Your task to perform on an android device: check android version Image 0: 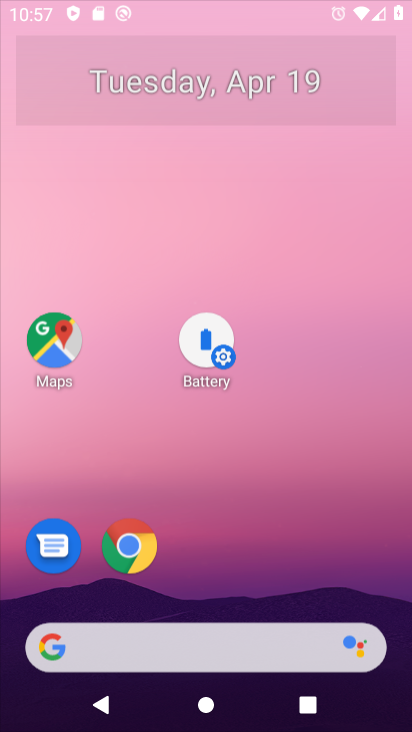
Step 0: click (54, 310)
Your task to perform on an android device: check android version Image 1: 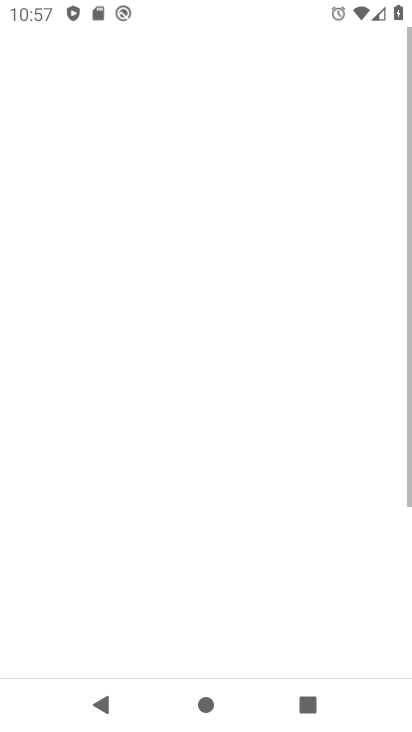
Step 1: press back button
Your task to perform on an android device: check android version Image 2: 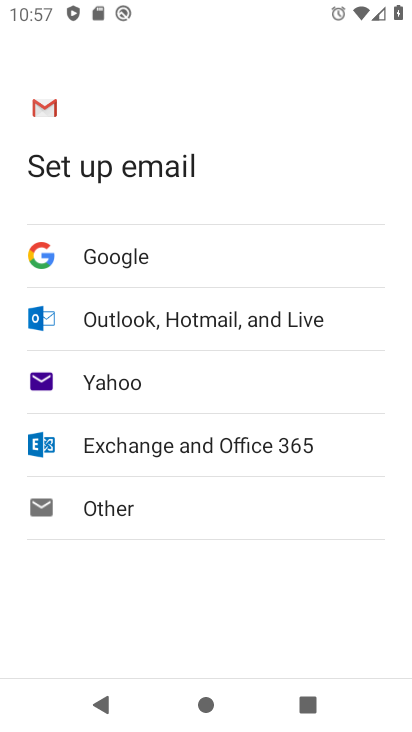
Step 2: press back button
Your task to perform on an android device: check android version Image 3: 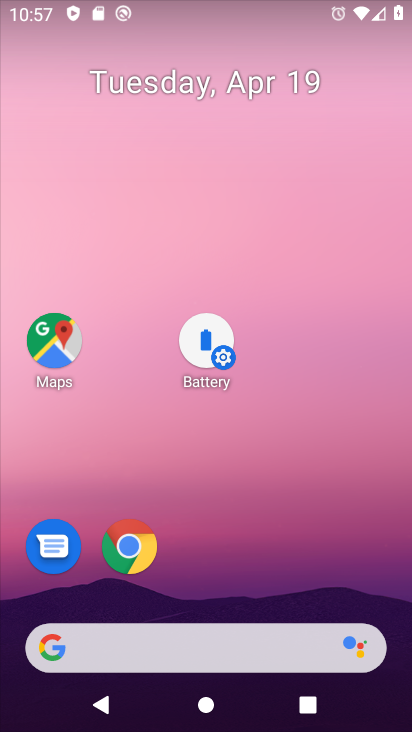
Step 3: drag from (253, 526) to (337, 83)
Your task to perform on an android device: check android version Image 4: 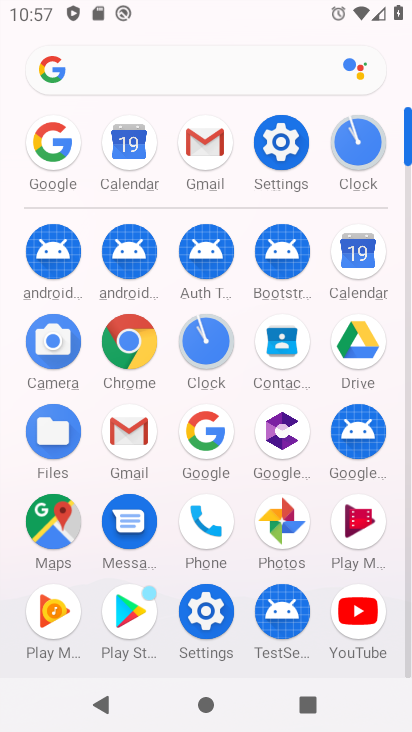
Step 4: click (289, 125)
Your task to perform on an android device: check android version Image 5: 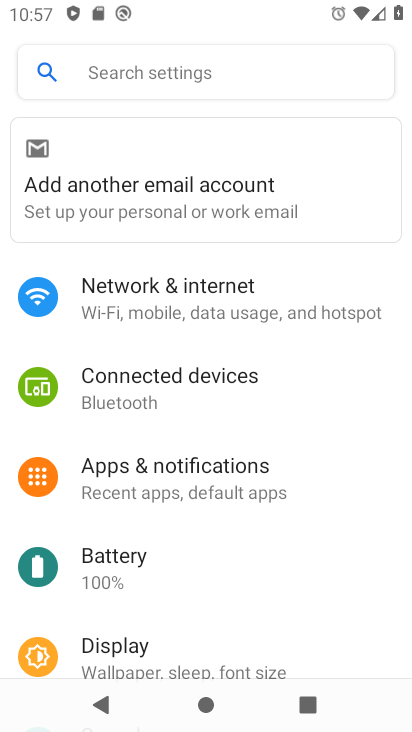
Step 5: drag from (172, 637) to (239, 111)
Your task to perform on an android device: check android version Image 6: 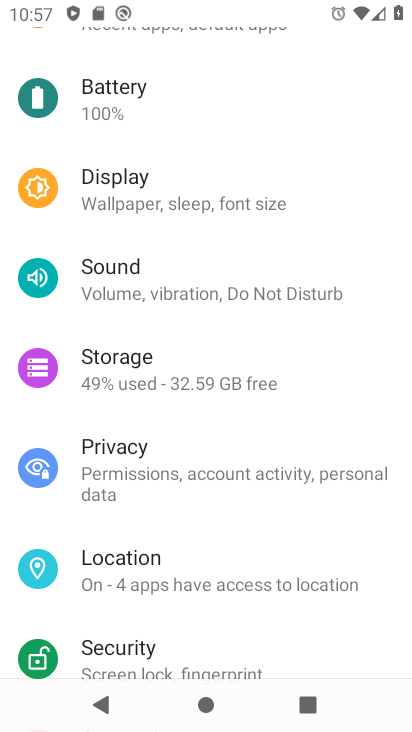
Step 6: drag from (164, 604) to (232, 78)
Your task to perform on an android device: check android version Image 7: 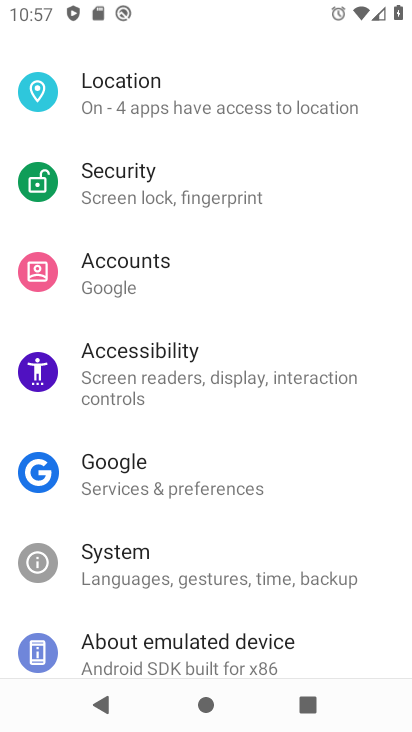
Step 7: drag from (226, 630) to (284, 79)
Your task to perform on an android device: check android version Image 8: 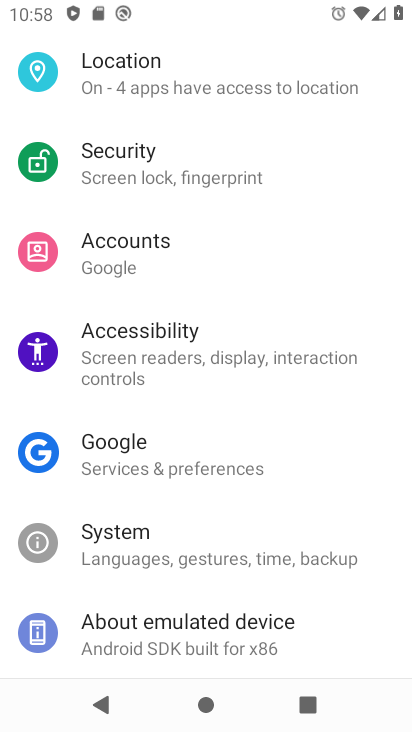
Step 8: click (202, 629)
Your task to perform on an android device: check android version Image 9: 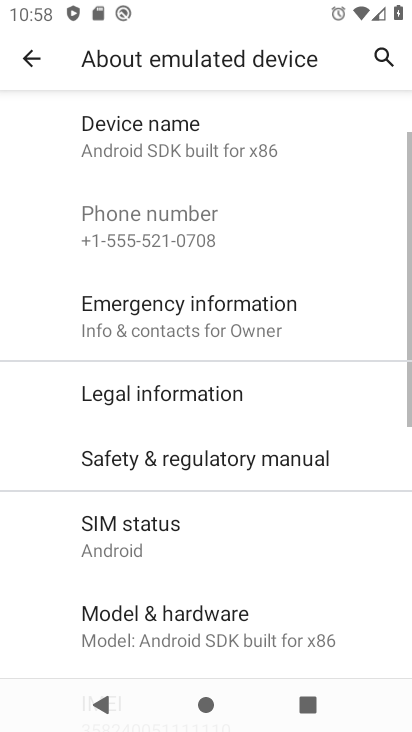
Step 9: drag from (185, 653) to (295, 110)
Your task to perform on an android device: check android version Image 10: 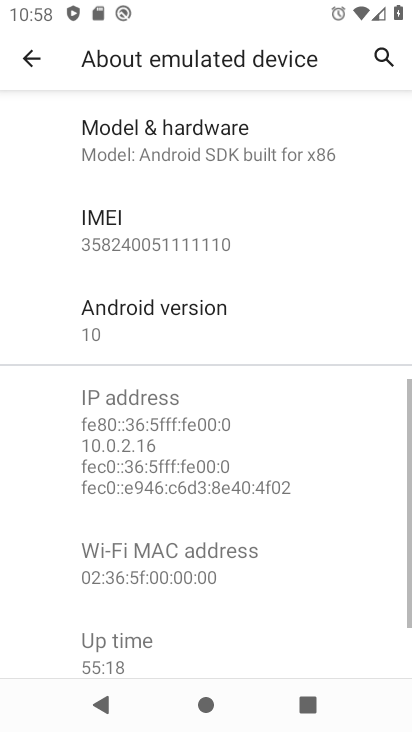
Step 10: click (179, 321)
Your task to perform on an android device: check android version Image 11: 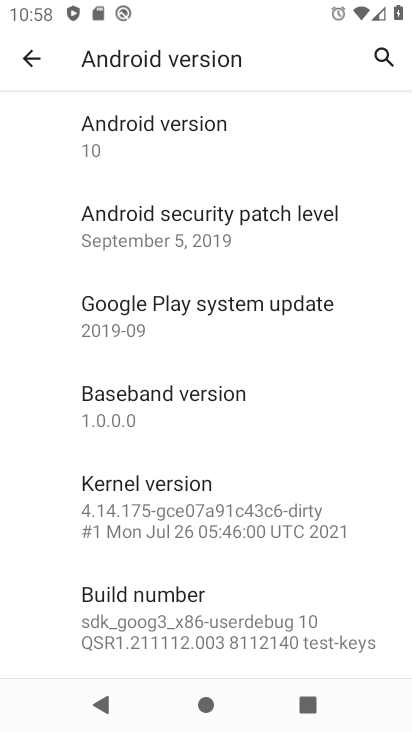
Step 11: task complete